Your task to perform on an android device: move an email to a new category in the gmail app Image 0: 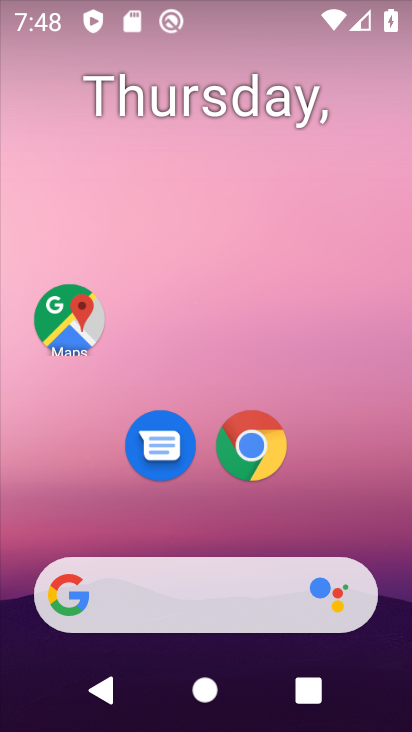
Step 0: drag from (345, 531) to (359, 7)
Your task to perform on an android device: move an email to a new category in the gmail app Image 1: 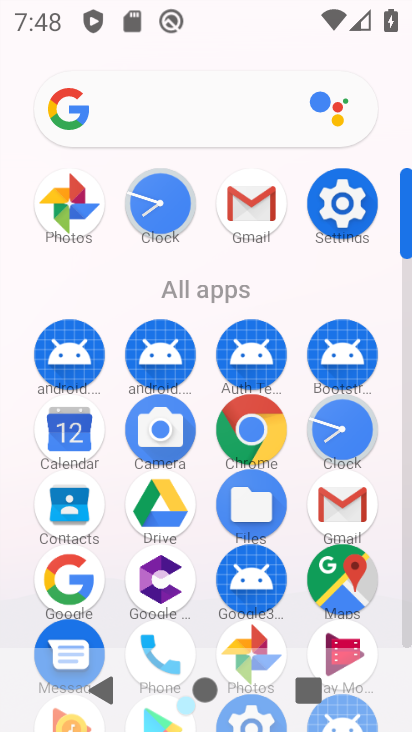
Step 1: click (237, 208)
Your task to perform on an android device: move an email to a new category in the gmail app Image 2: 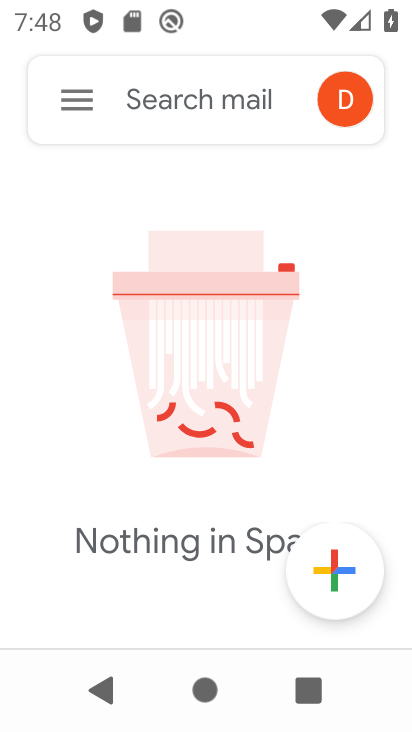
Step 2: click (69, 102)
Your task to perform on an android device: move an email to a new category in the gmail app Image 3: 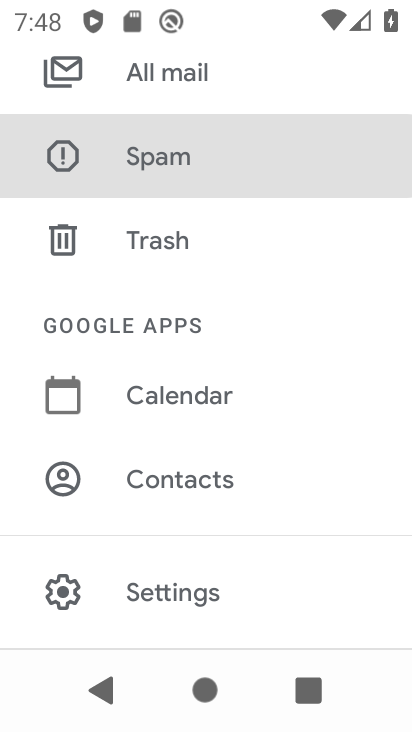
Step 3: click (170, 79)
Your task to perform on an android device: move an email to a new category in the gmail app Image 4: 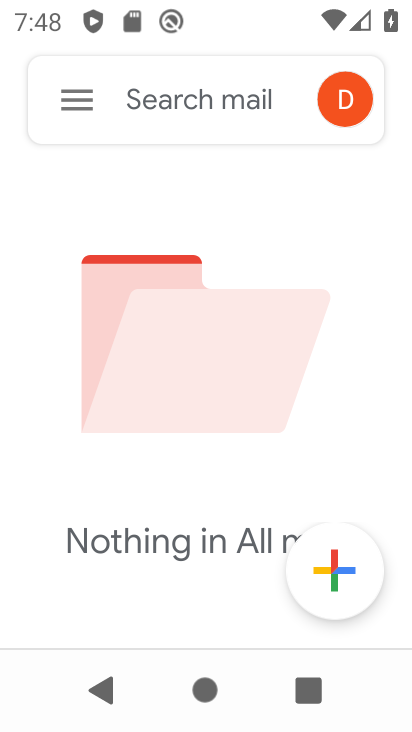
Step 4: task complete